Your task to perform on an android device: open a new tab in the chrome app Image 0: 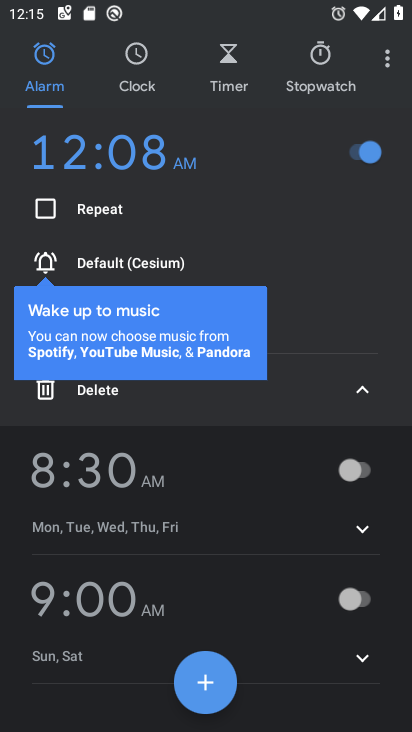
Step 0: press home button
Your task to perform on an android device: open a new tab in the chrome app Image 1: 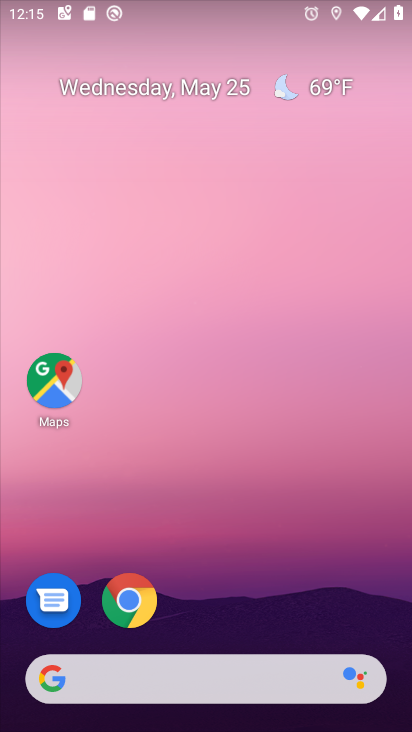
Step 1: drag from (362, 628) to (354, 237)
Your task to perform on an android device: open a new tab in the chrome app Image 2: 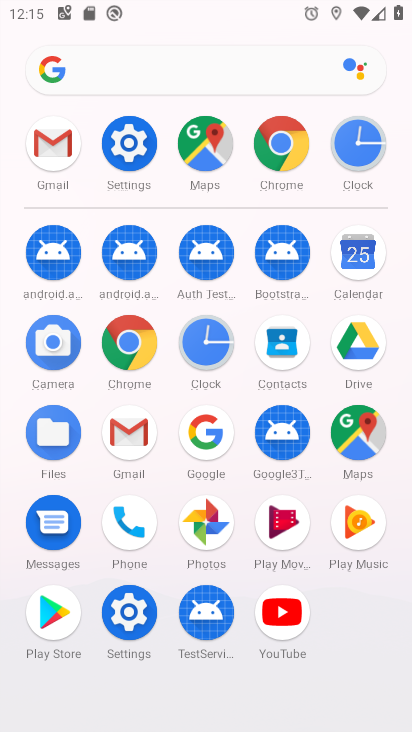
Step 2: click (134, 348)
Your task to perform on an android device: open a new tab in the chrome app Image 3: 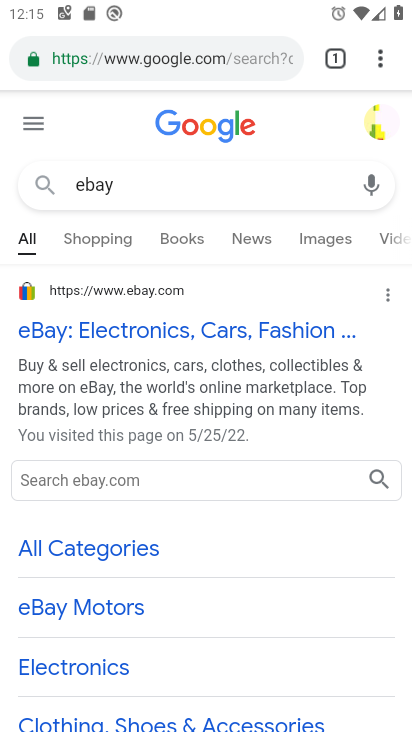
Step 3: click (384, 63)
Your task to perform on an android device: open a new tab in the chrome app Image 4: 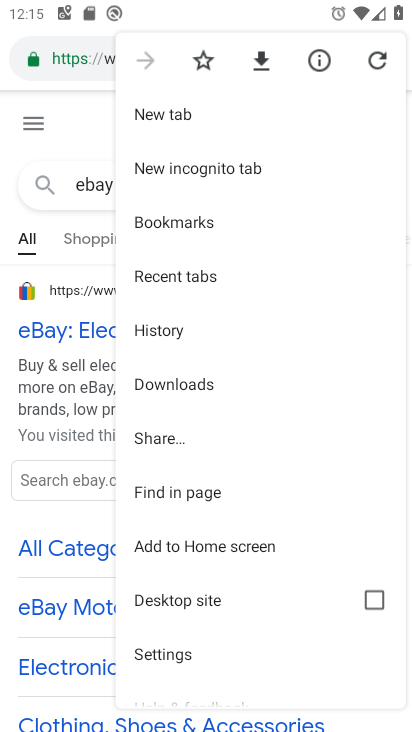
Step 4: click (195, 118)
Your task to perform on an android device: open a new tab in the chrome app Image 5: 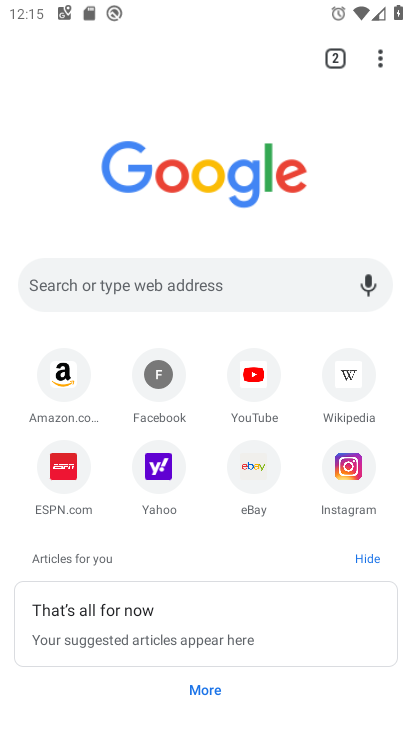
Step 5: task complete